Your task to perform on an android device: turn off location Image 0: 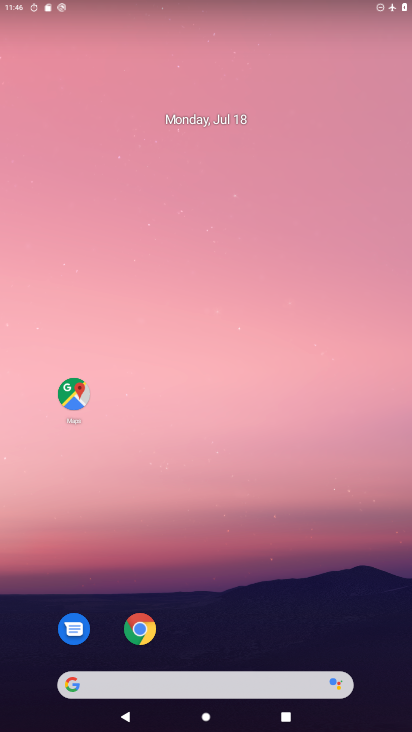
Step 0: drag from (318, 568) to (279, 116)
Your task to perform on an android device: turn off location Image 1: 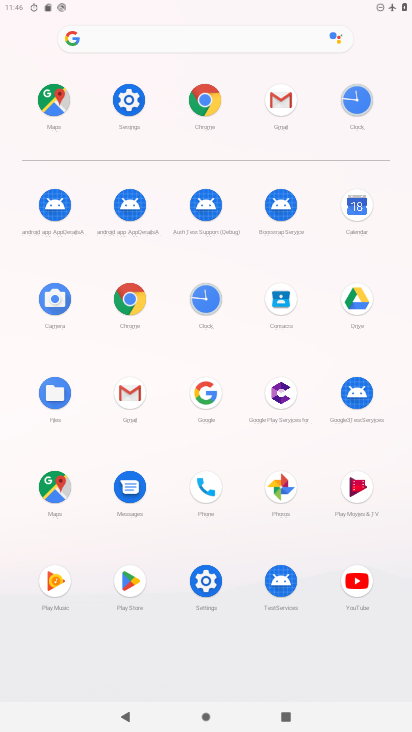
Step 1: click (136, 110)
Your task to perform on an android device: turn off location Image 2: 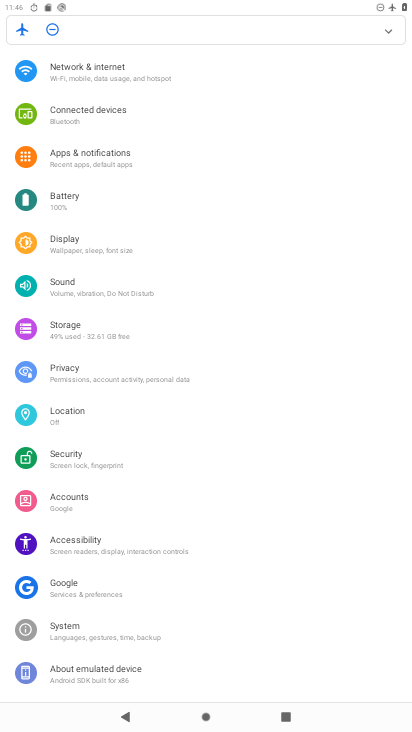
Step 2: click (69, 417)
Your task to perform on an android device: turn off location Image 3: 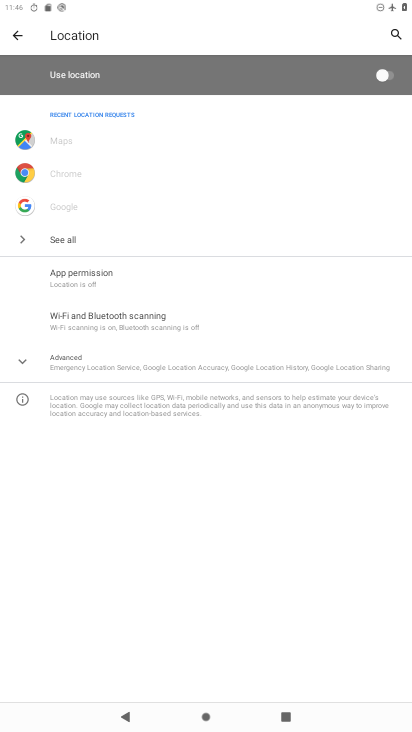
Step 3: task complete